Your task to perform on an android device: Open eBay Image 0: 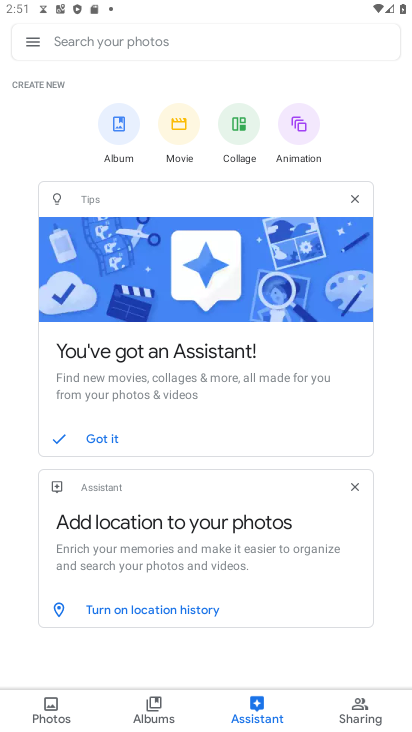
Step 0: press home button
Your task to perform on an android device: Open eBay Image 1: 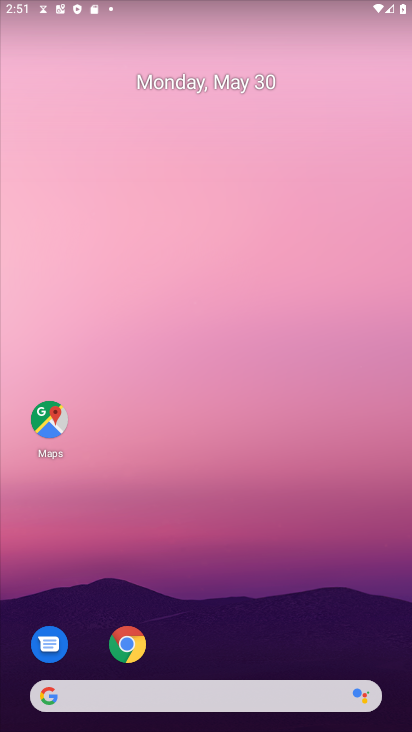
Step 1: click (126, 702)
Your task to perform on an android device: Open eBay Image 2: 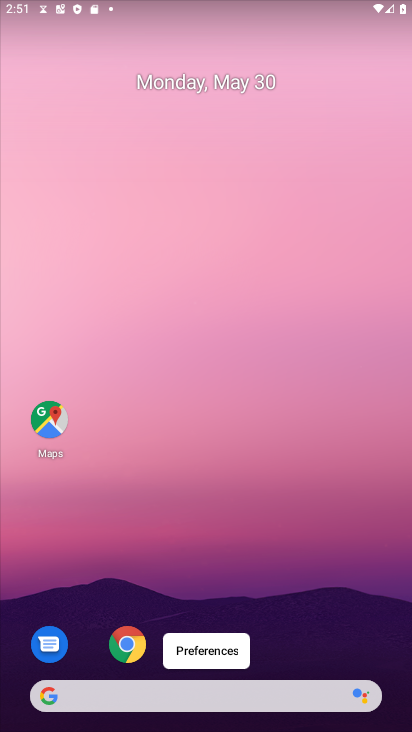
Step 2: click (124, 697)
Your task to perform on an android device: Open eBay Image 3: 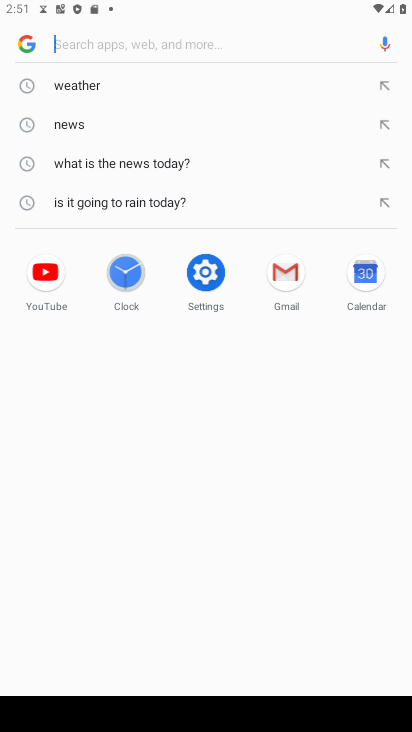
Step 3: type "eBay"
Your task to perform on an android device: Open eBay Image 4: 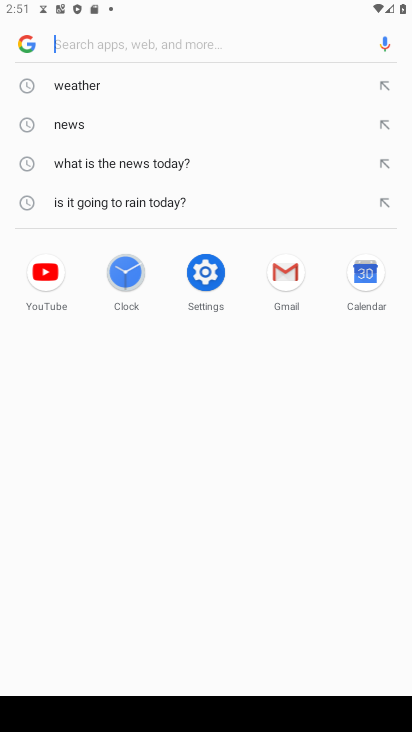
Step 4: click (182, 40)
Your task to perform on an android device: Open eBay Image 5: 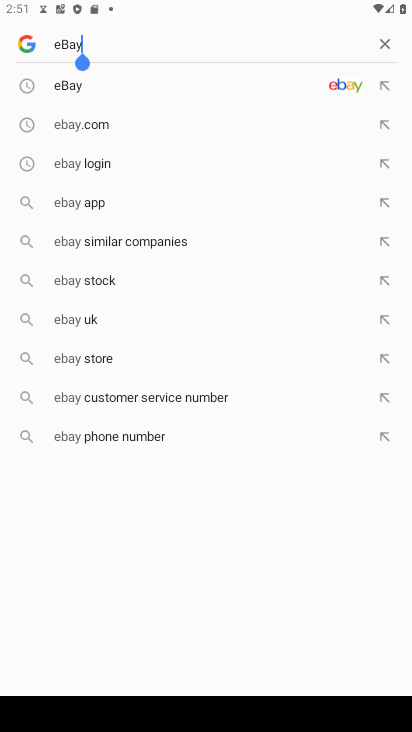
Step 5: click (94, 87)
Your task to perform on an android device: Open eBay Image 6: 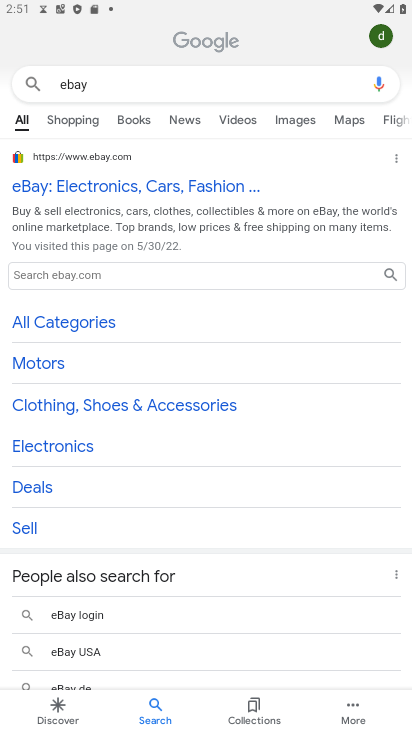
Step 6: click (90, 180)
Your task to perform on an android device: Open eBay Image 7: 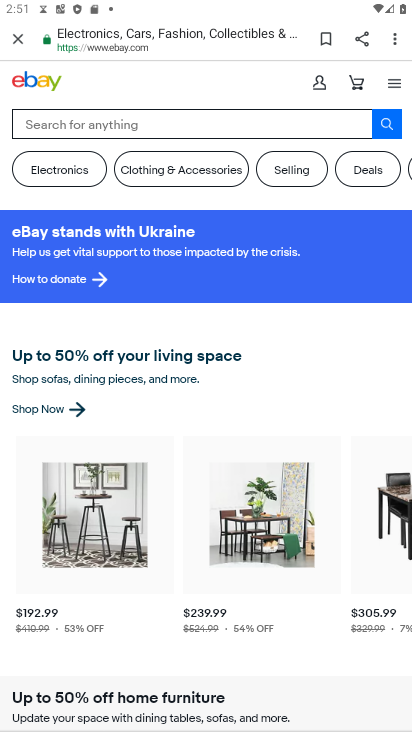
Step 7: task complete